Your task to perform on an android device: turn pop-ups off in chrome Image 0: 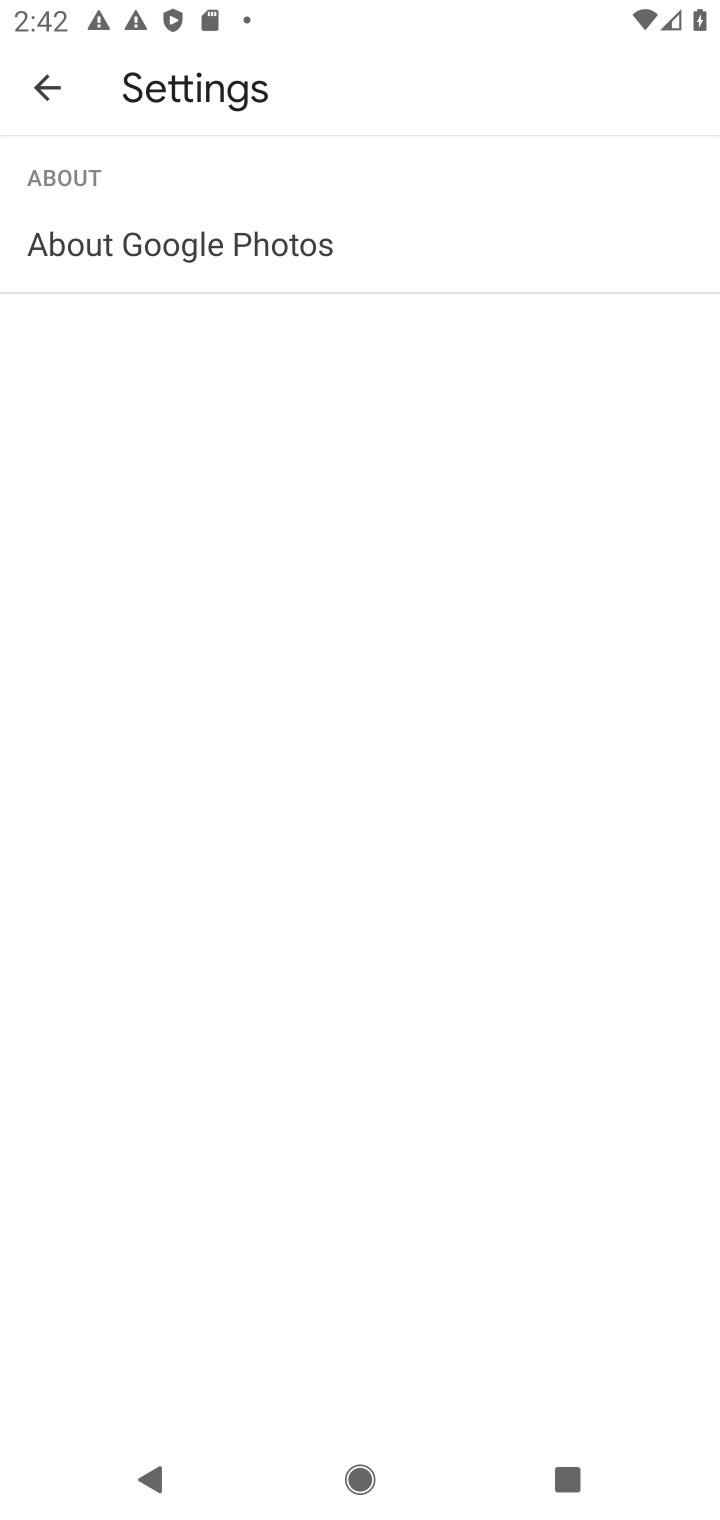
Step 0: press back button
Your task to perform on an android device: turn pop-ups off in chrome Image 1: 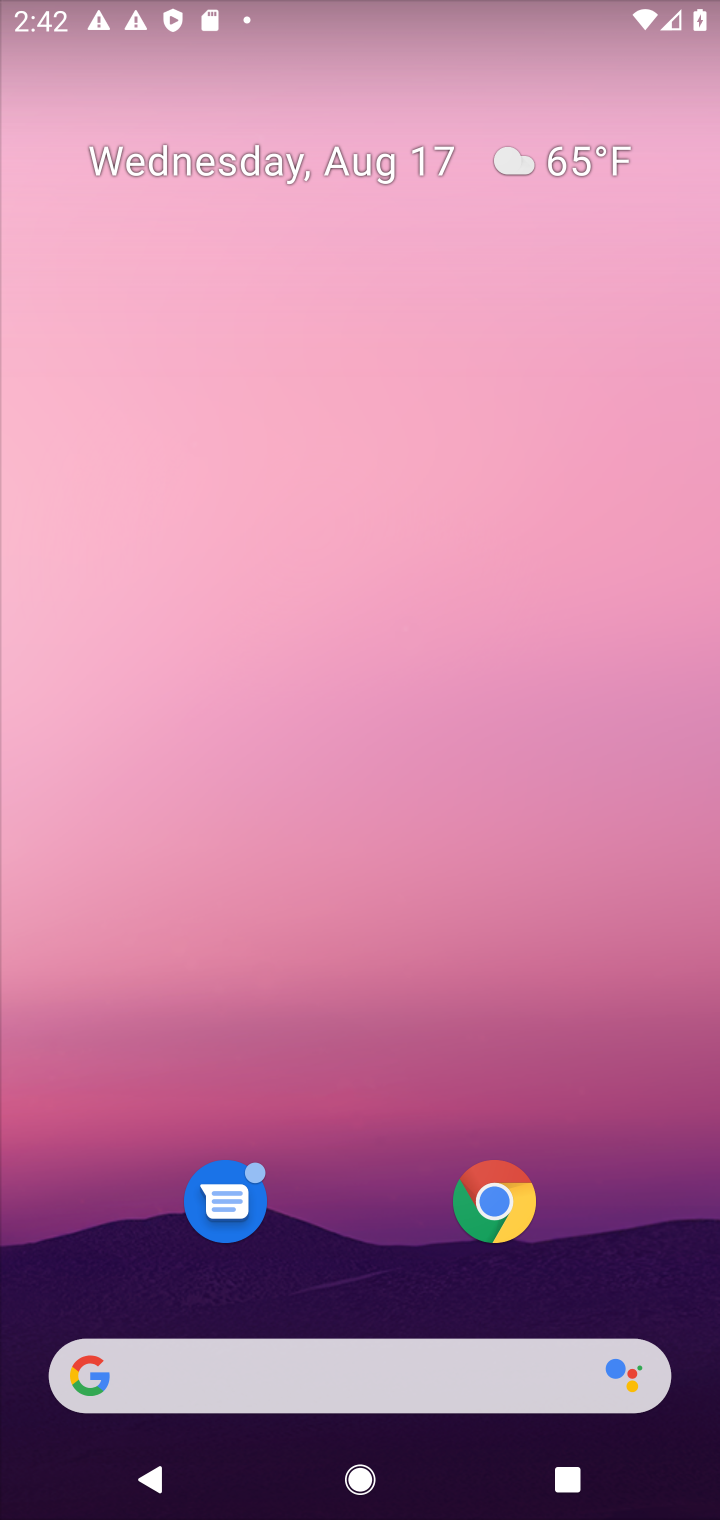
Step 1: click (494, 1210)
Your task to perform on an android device: turn pop-ups off in chrome Image 2: 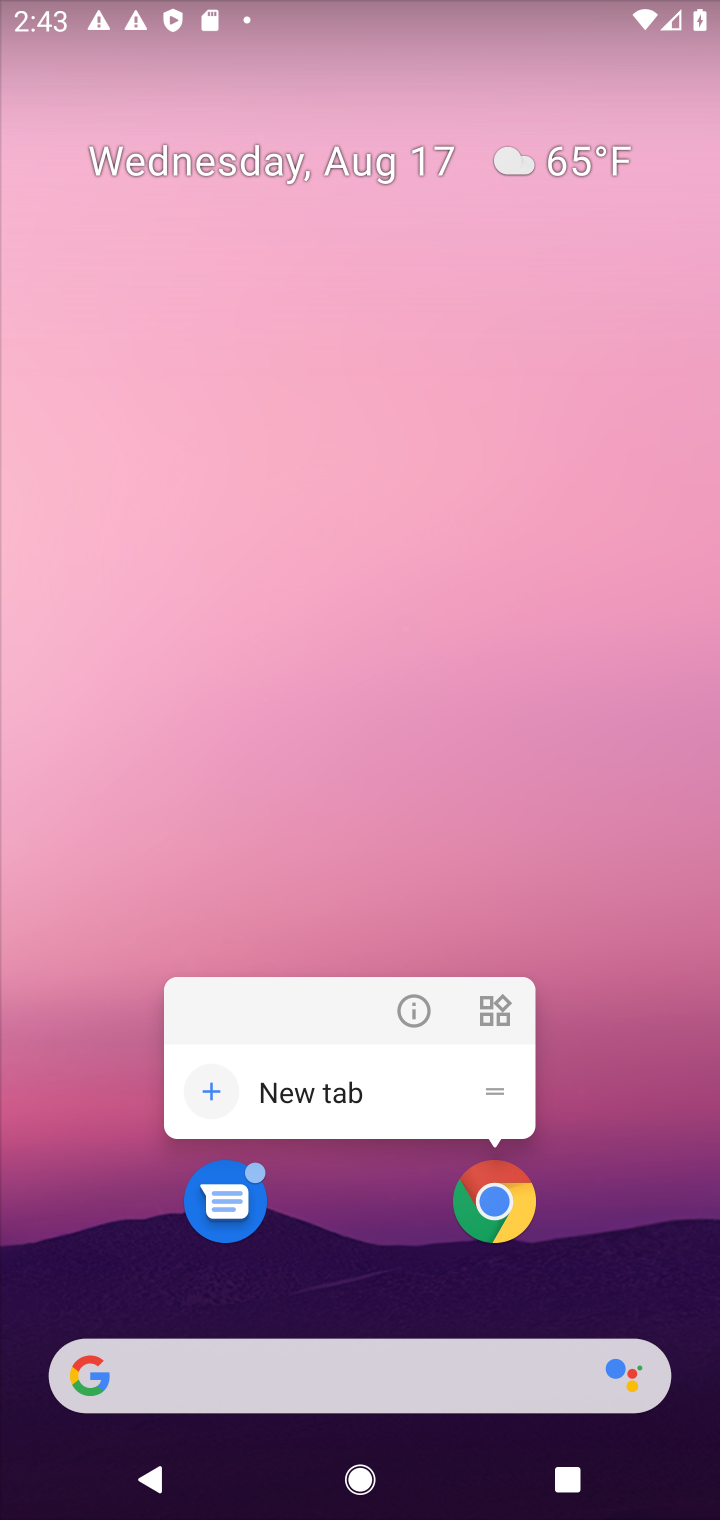
Step 2: click (494, 1210)
Your task to perform on an android device: turn pop-ups off in chrome Image 3: 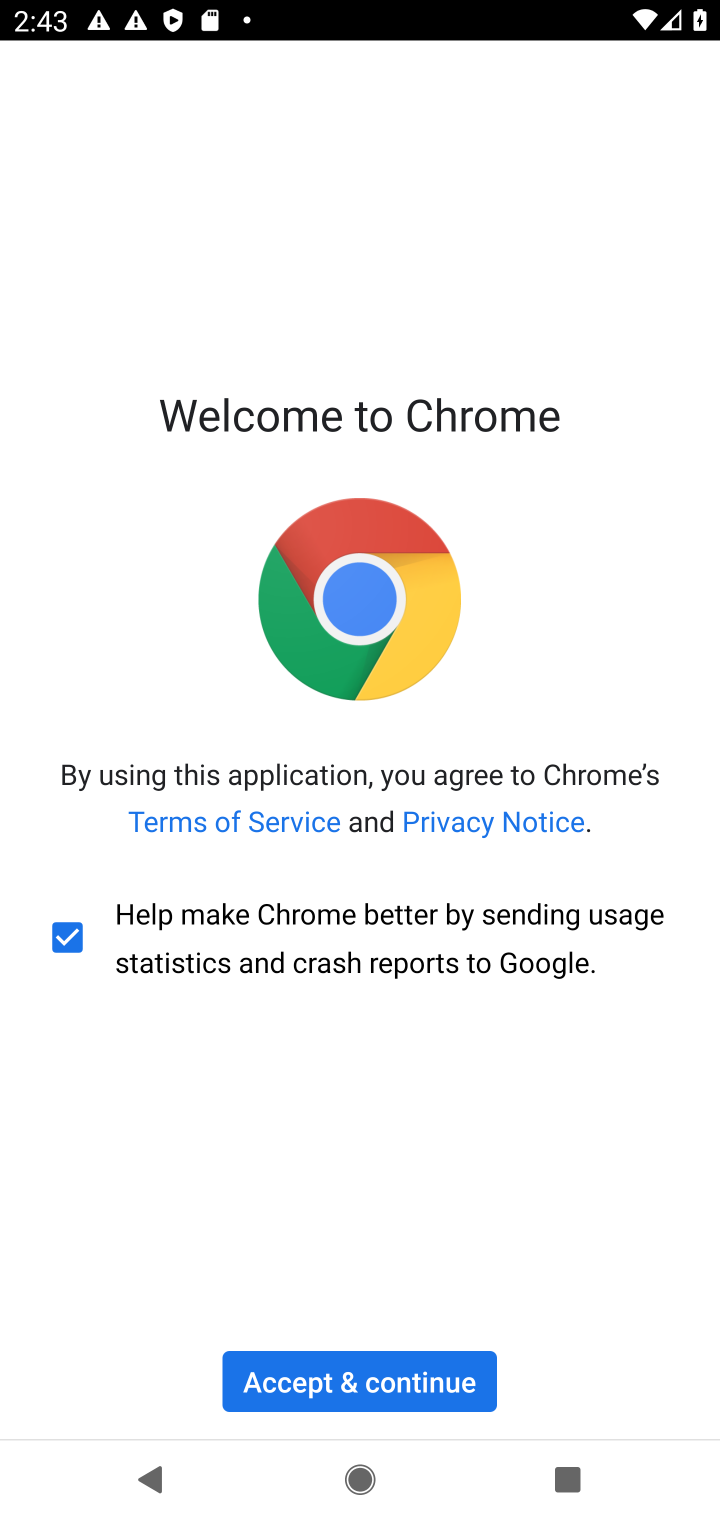
Step 3: click (272, 1378)
Your task to perform on an android device: turn pop-ups off in chrome Image 4: 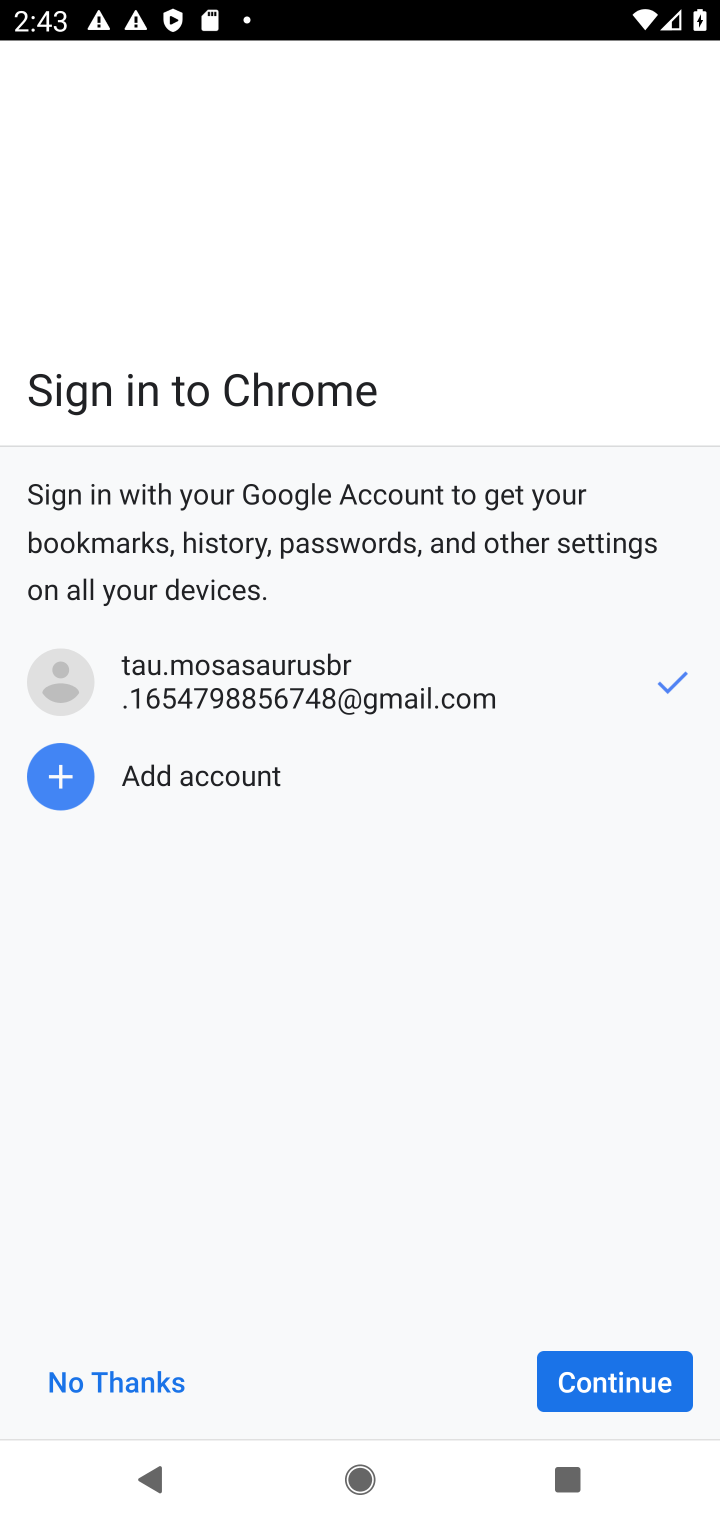
Step 4: click (584, 1360)
Your task to perform on an android device: turn pop-ups off in chrome Image 5: 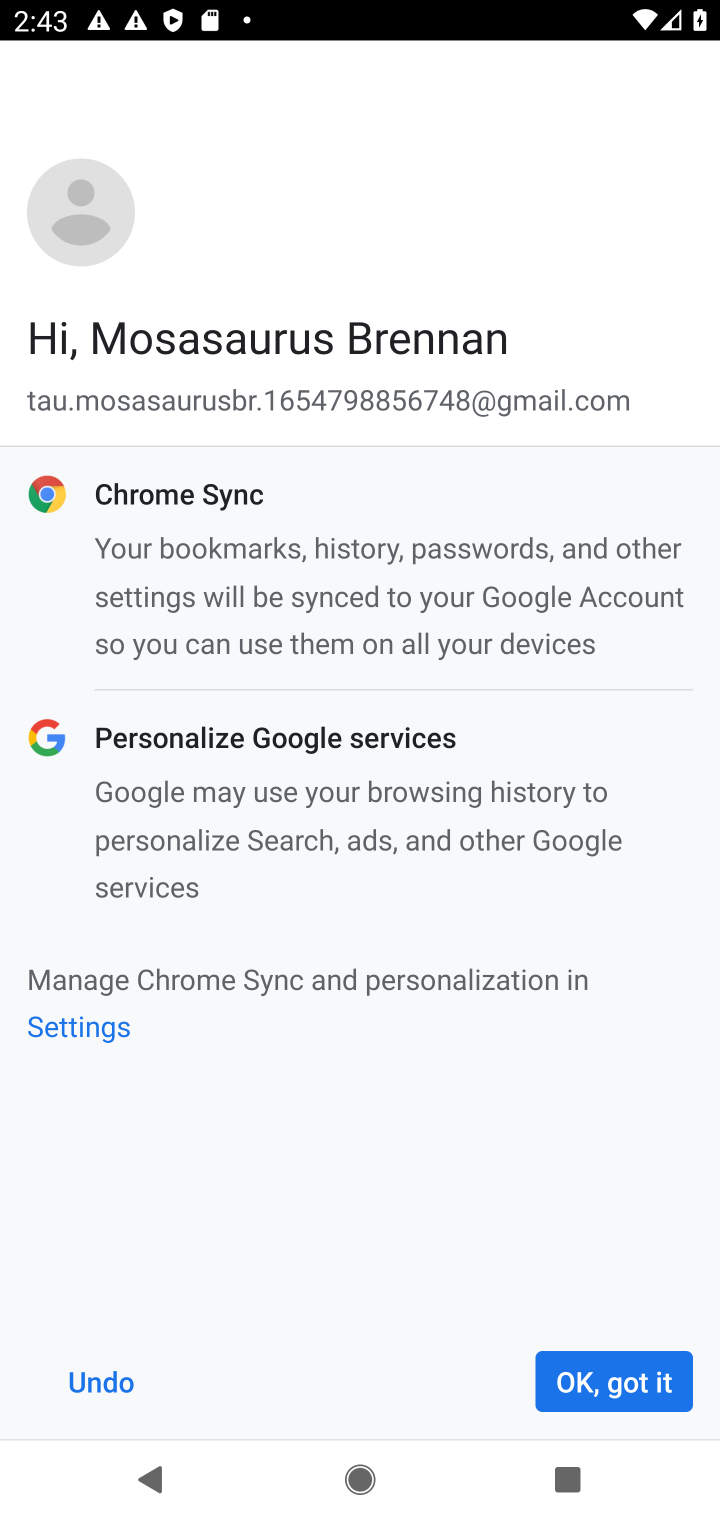
Step 5: click (626, 1380)
Your task to perform on an android device: turn pop-ups off in chrome Image 6: 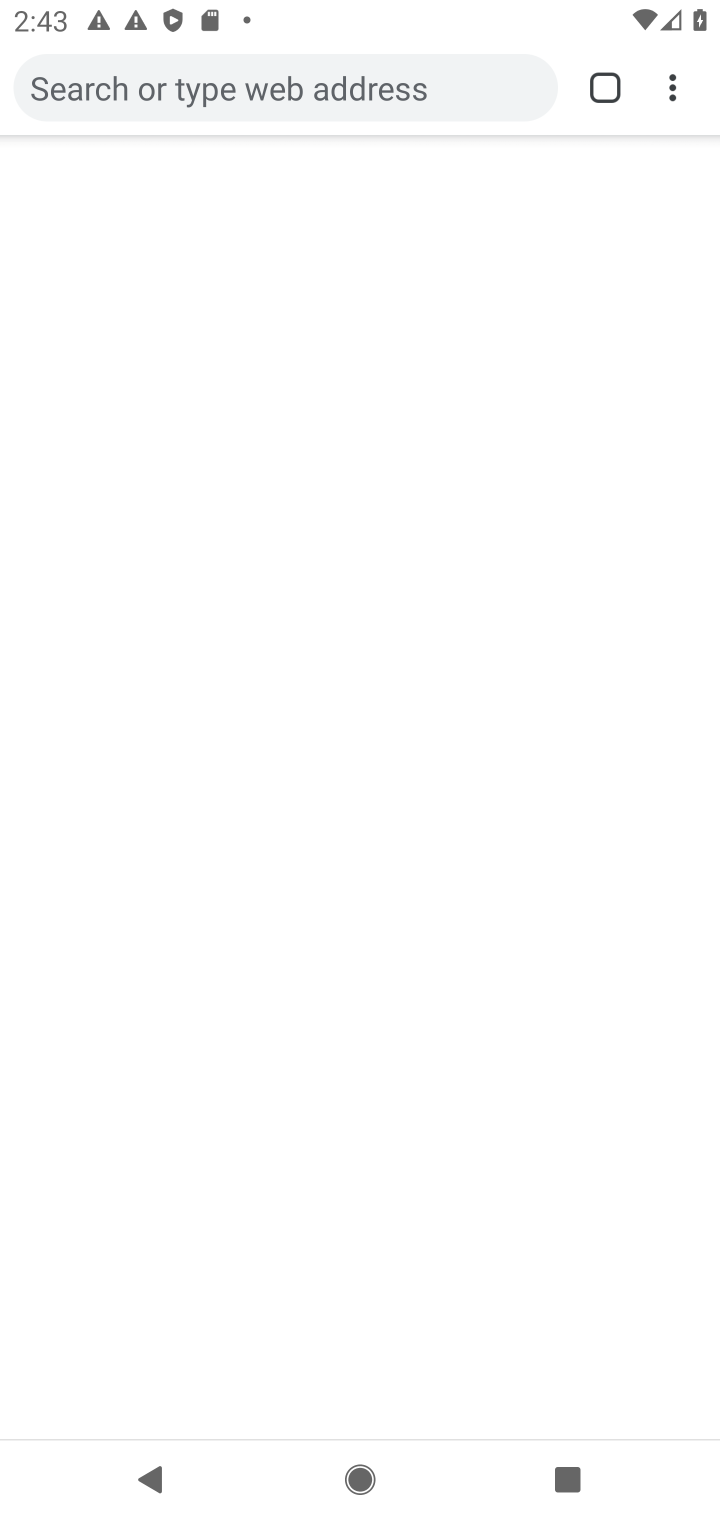
Step 6: drag from (664, 79) to (373, 725)
Your task to perform on an android device: turn pop-ups off in chrome Image 7: 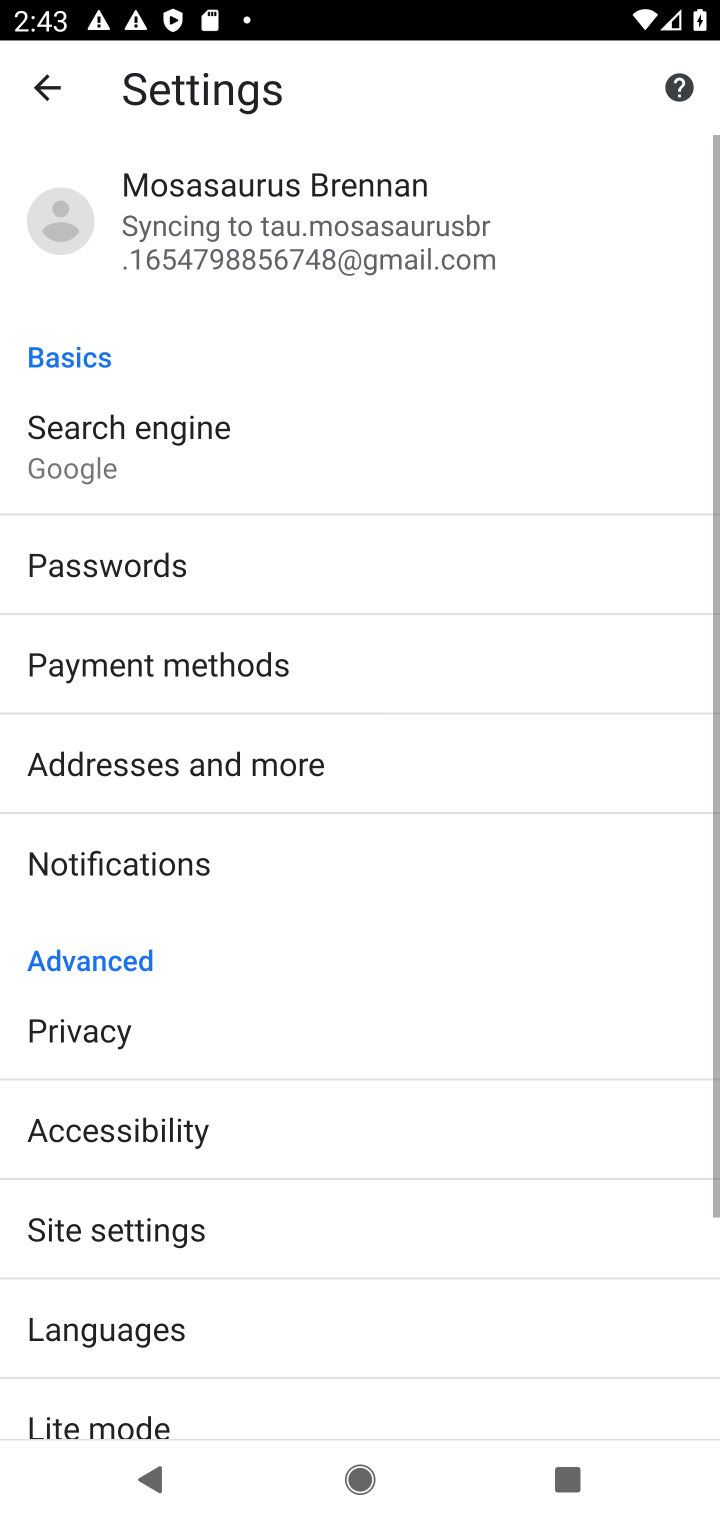
Step 7: click (73, 1217)
Your task to perform on an android device: turn pop-ups off in chrome Image 8: 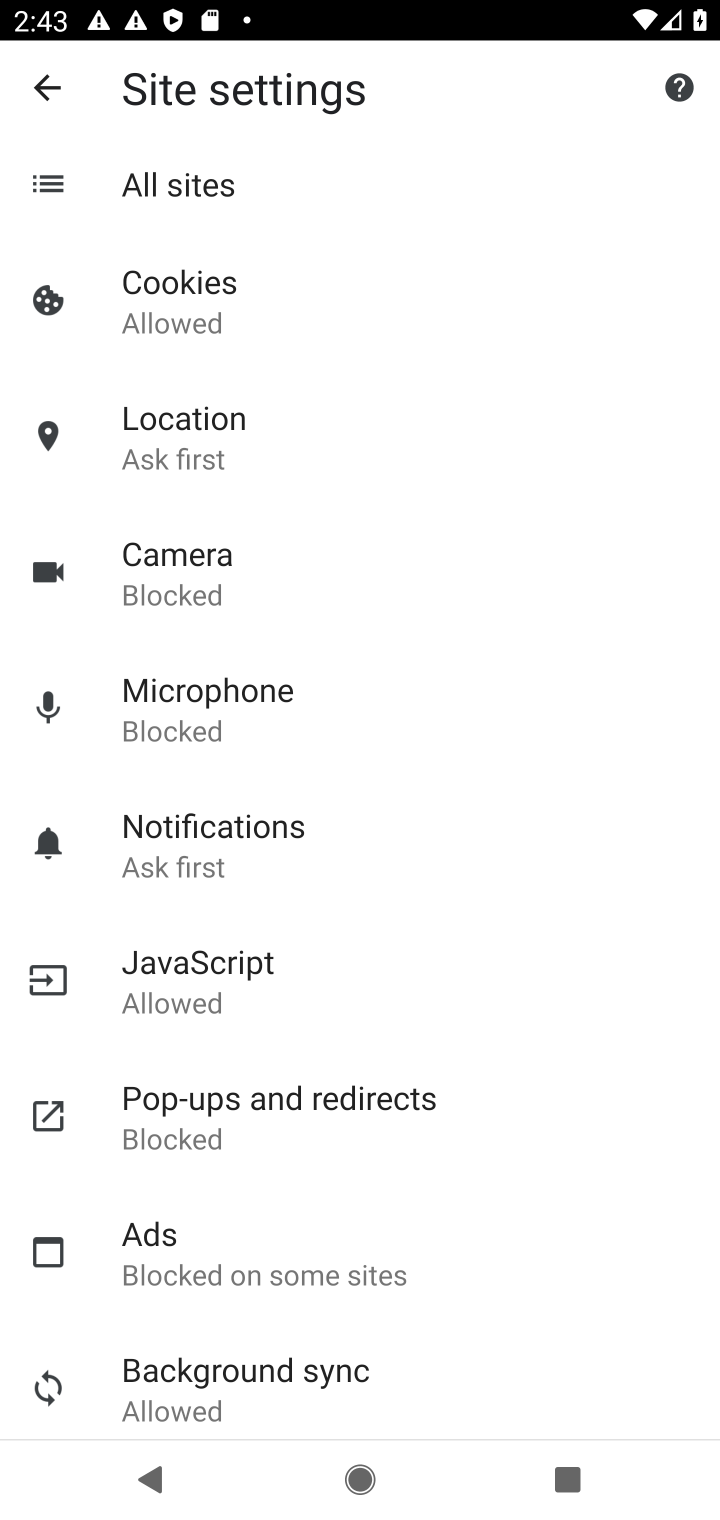
Step 8: click (257, 1125)
Your task to perform on an android device: turn pop-ups off in chrome Image 9: 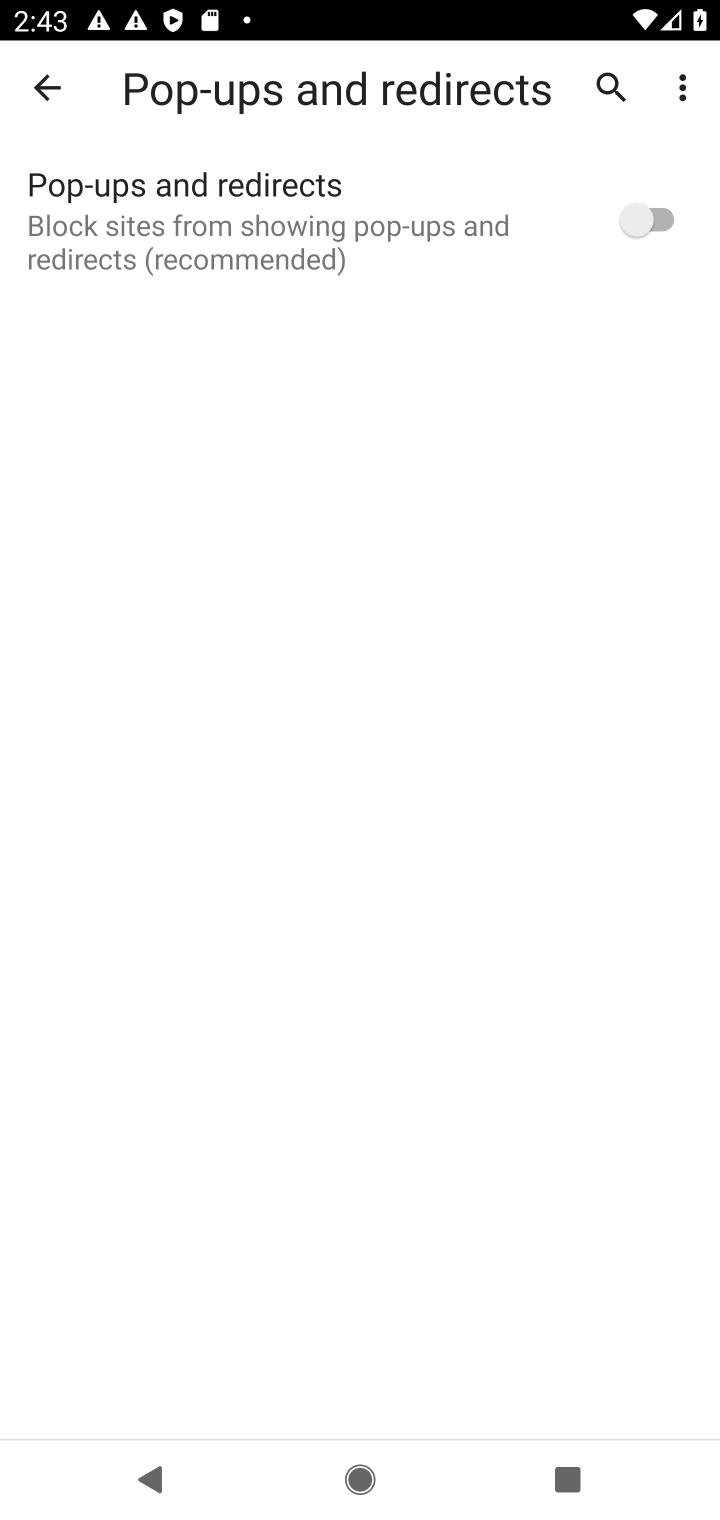
Step 9: task complete